Your task to perform on an android device: Go to display settings Image 0: 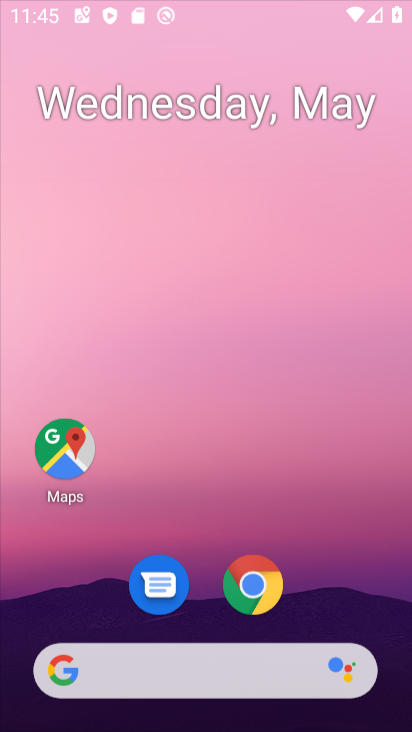
Step 0: drag from (222, 285) to (234, 67)
Your task to perform on an android device: Go to display settings Image 1: 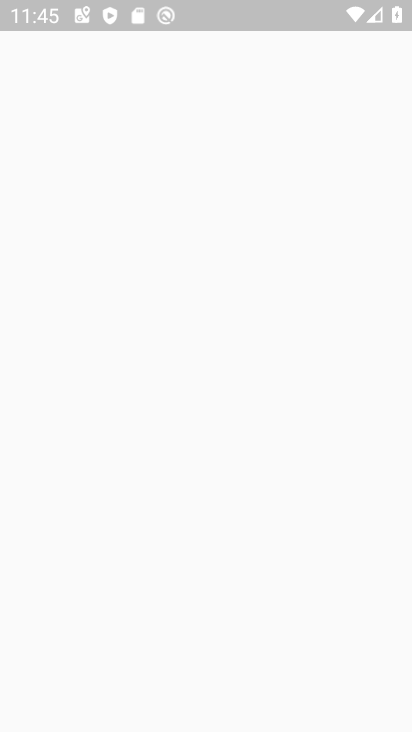
Step 1: press home button
Your task to perform on an android device: Go to display settings Image 2: 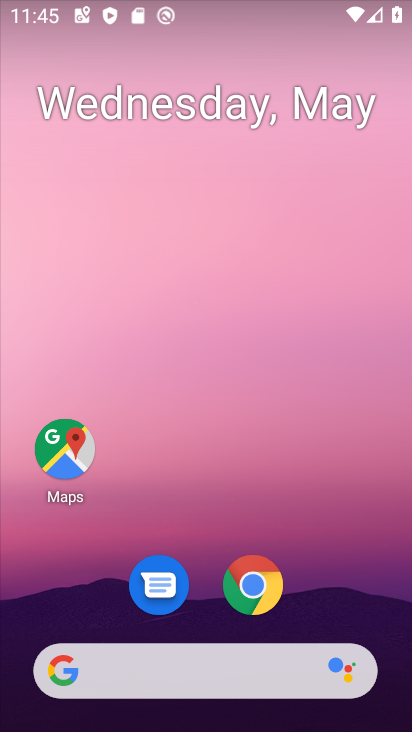
Step 2: drag from (255, 529) to (310, 51)
Your task to perform on an android device: Go to display settings Image 3: 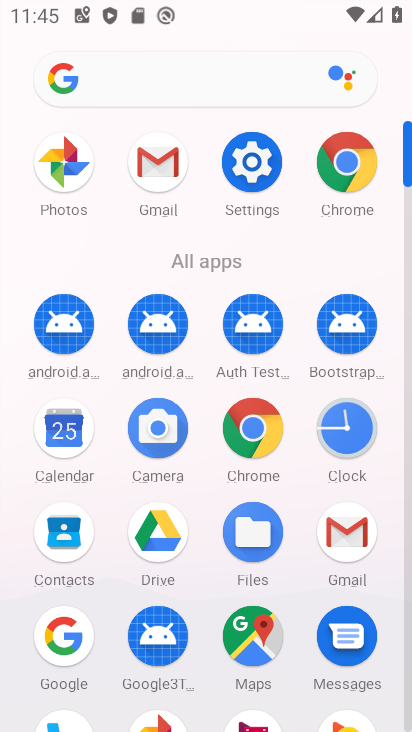
Step 3: click (264, 159)
Your task to perform on an android device: Go to display settings Image 4: 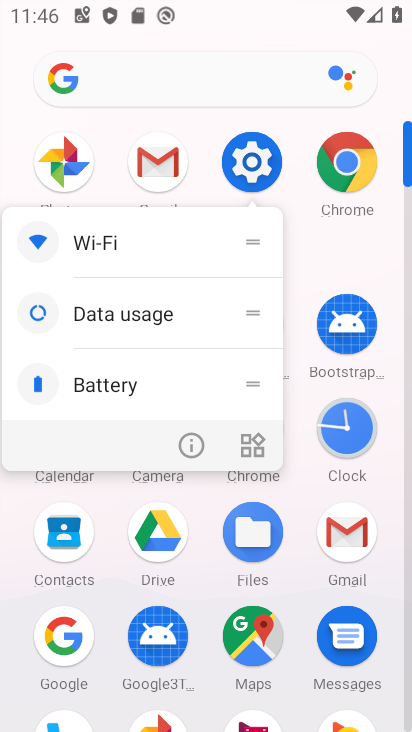
Step 4: click (255, 145)
Your task to perform on an android device: Go to display settings Image 5: 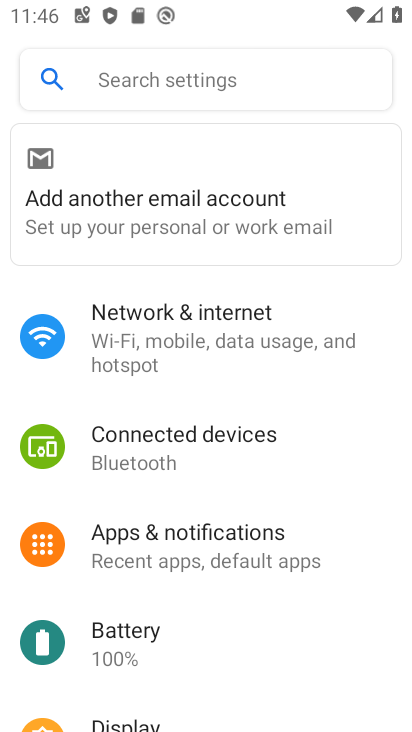
Step 5: drag from (201, 607) to (245, 189)
Your task to perform on an android device: Go to display settings Image 6: 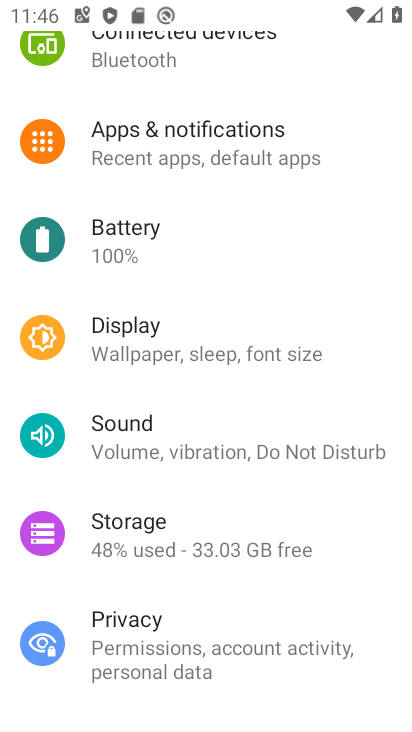
Step 6: click (182, 334)
Your task to perform on an android device: Go to display settings Image 7: 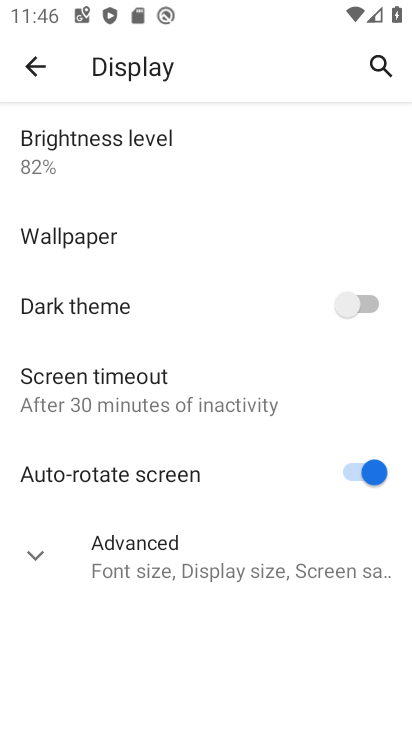
Step 7: task complete